Your task to perform on an android device: Open the stopwatch Image 0: 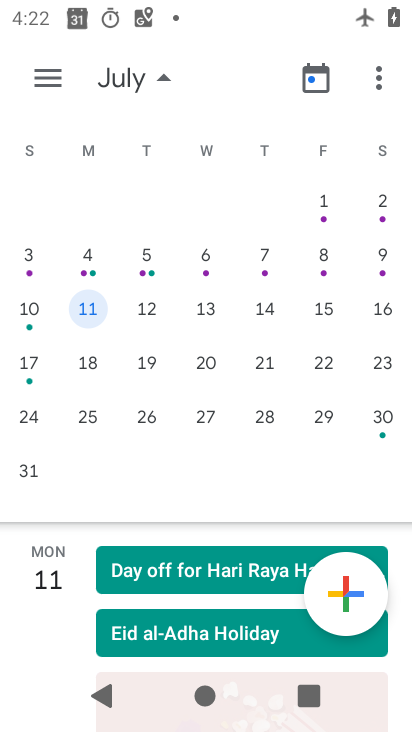
Step 0: press back button
Your task to perform on an android device: Open the stopwatch Image 1: 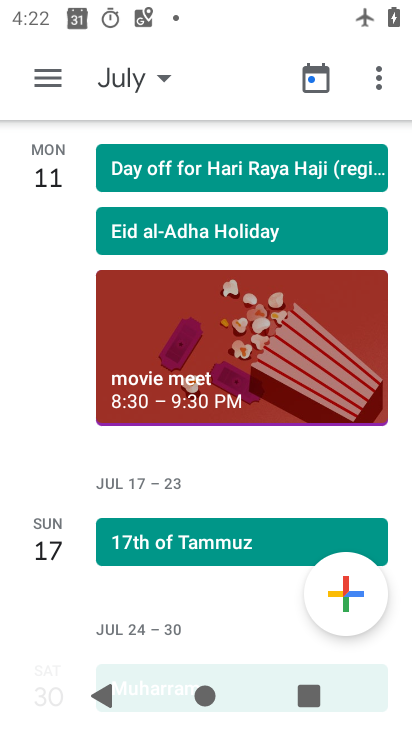
Step 1: press back button
Your task to perform on an android device: Open the stopwatch Image 2: 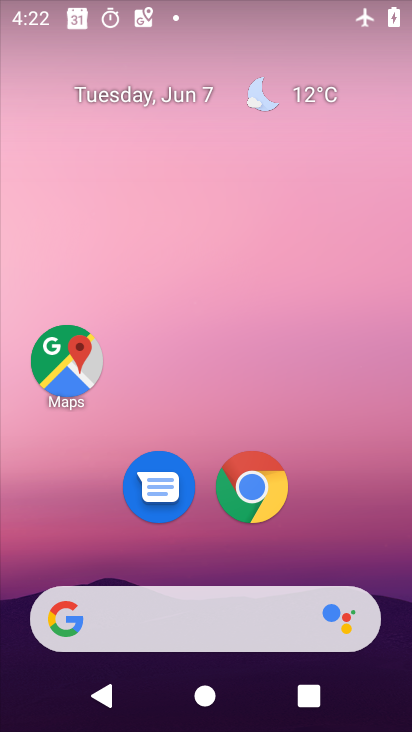
Step 2: drag from (125, 565) to (216, 55)
Your task to perform on an android device: Open the stopwatch Image 3: 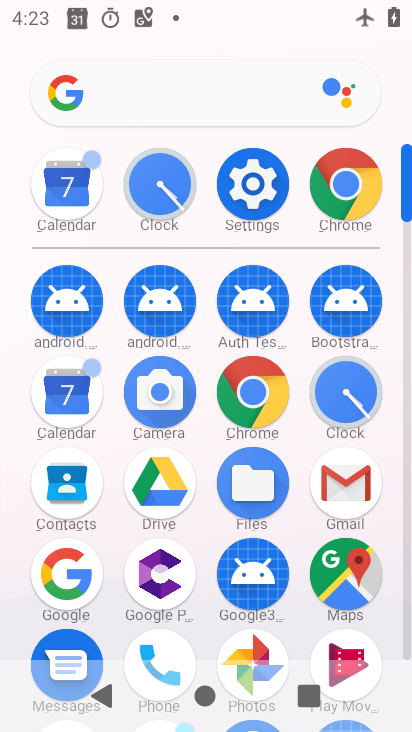
Step 3: click (146, 187)
Your task to perform on an android device: Open the stopwatch Image 4: 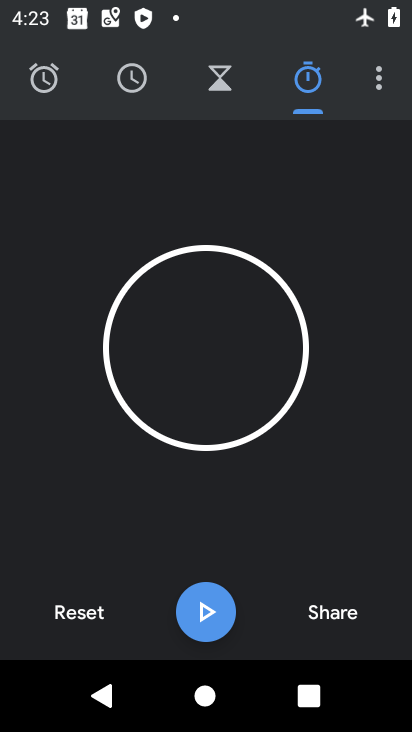
Step 4: task complete